Your task to perform on an android device: open chrome and create a bookmark for the current page Image 0: 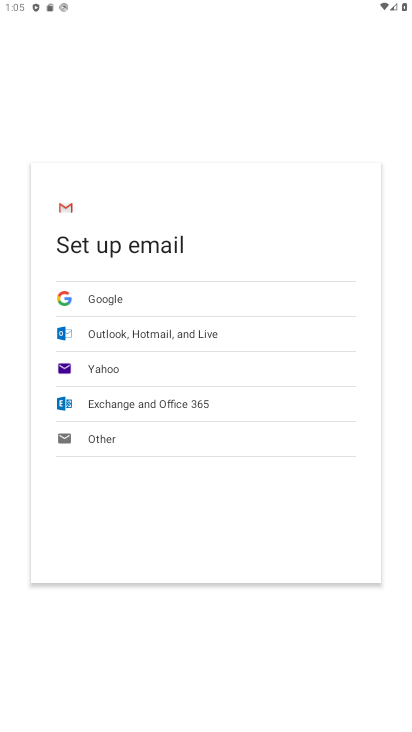
Step 0: press home button
Your task to perform on an android device: open chrome and create a bookmark for the current page Image 1: 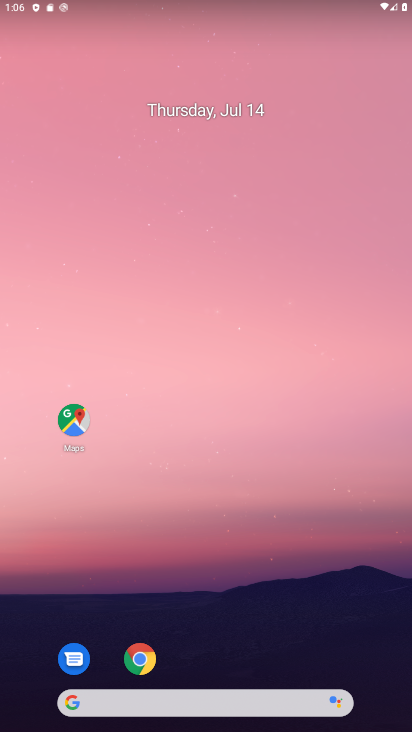
Step 1: click (151, 645)
Your task to perform on an android device: open chrome and create a bookmark for the current page Image 2: 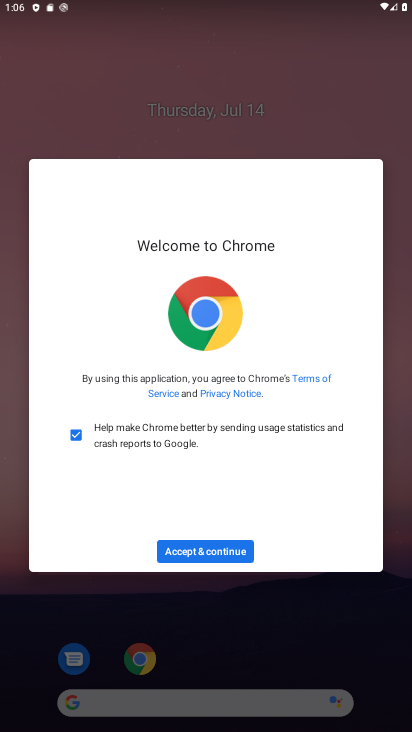
Step 2: click (240, 549)
Your task to perform on an android device: open chrome and create a bookmark for the current page Image 3: 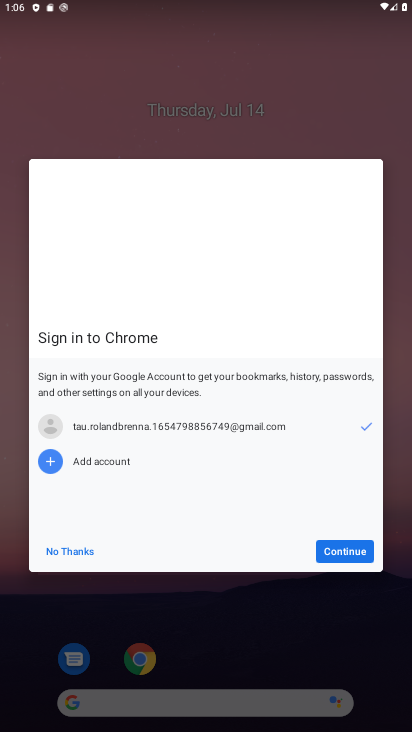
Step 3: click (338, 539)
Your task to perform on an android device: open chrome and create a bookmark for the current page Image 4: 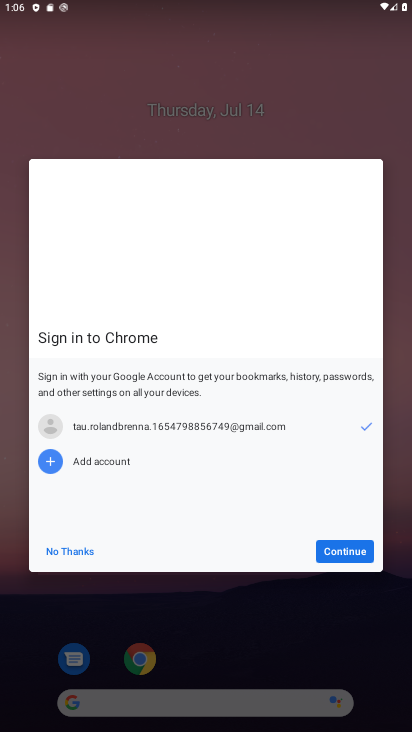
Step 4: click (351, 554)
Your task to perform on an android device: open chrome and create a bookmark for the current page Image 5: 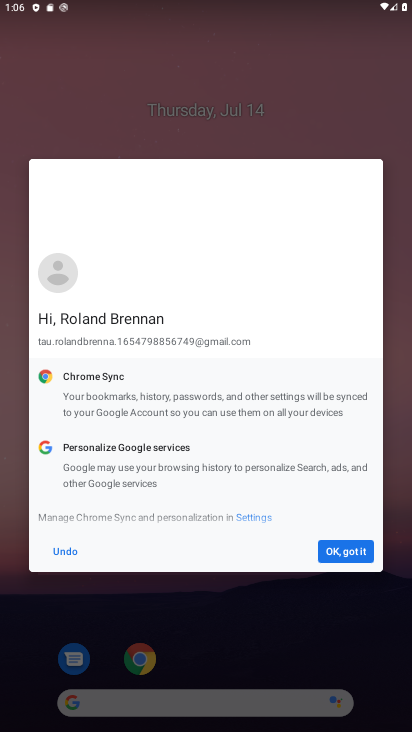
Step 5: click (352, 553)
Your task to perform on an android device: open chrome and create a bookmark for the current page Image 6: 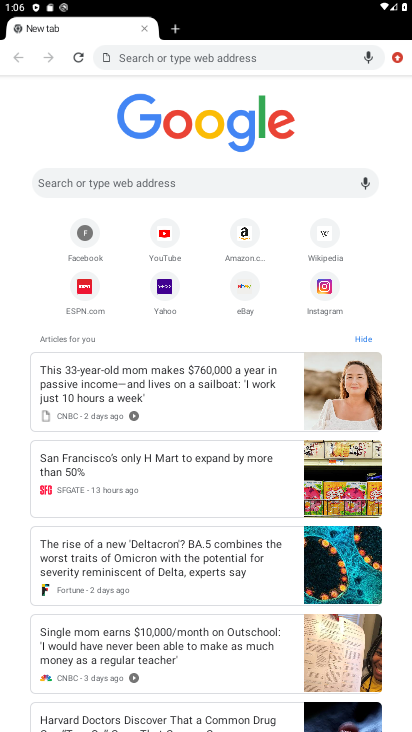
Step 6: click (216, 631)
Your task to perform on an android device: open chrome and create a bookmark for the current page Image 7: 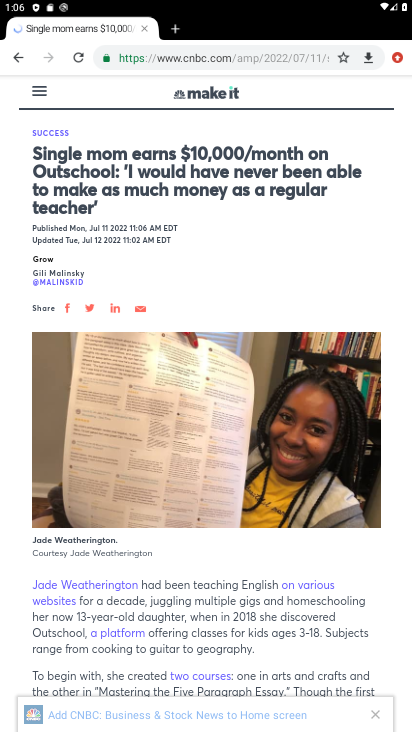
Step 7: click (339, 61)
Your task to perform on an android device: open chrome and create a bookmark for the current page Image 8: 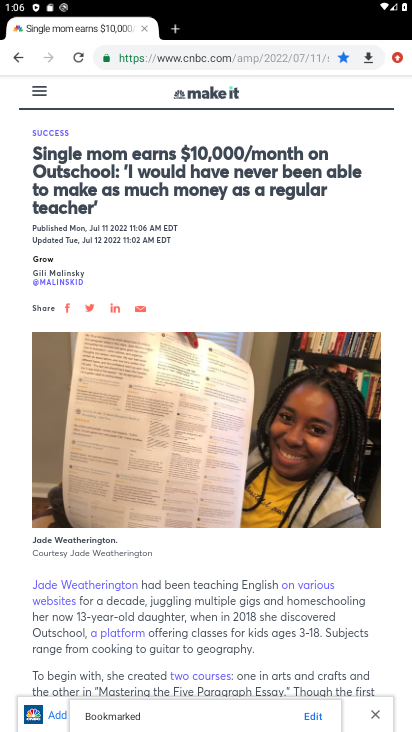
Step 8: task complete